Your task to perform on an android device: change your default location settings in chrome Image 0: 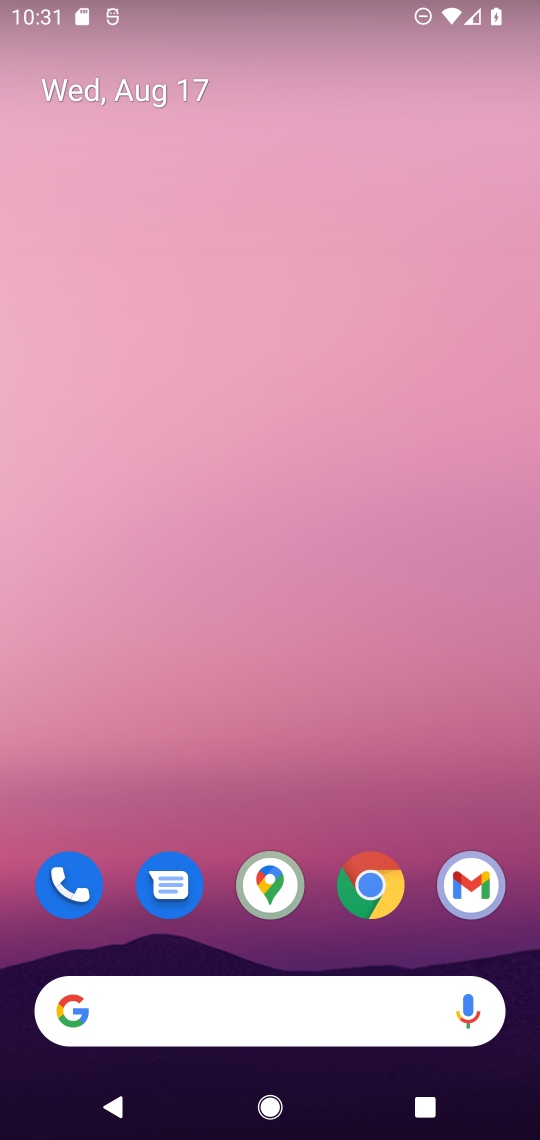
Step 0: click (367, 885)
Your task to perform on an android device: change your default location settings in chrome Image 1: 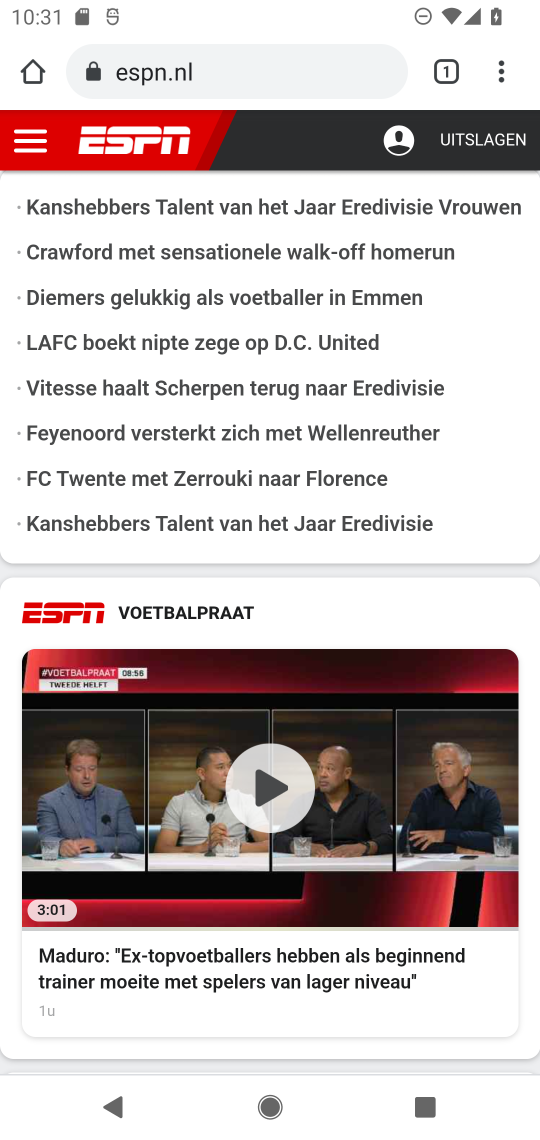
Step 1: click (492, 84)
Your task to perform on an android device: change your default location settings in chrome Image 2: 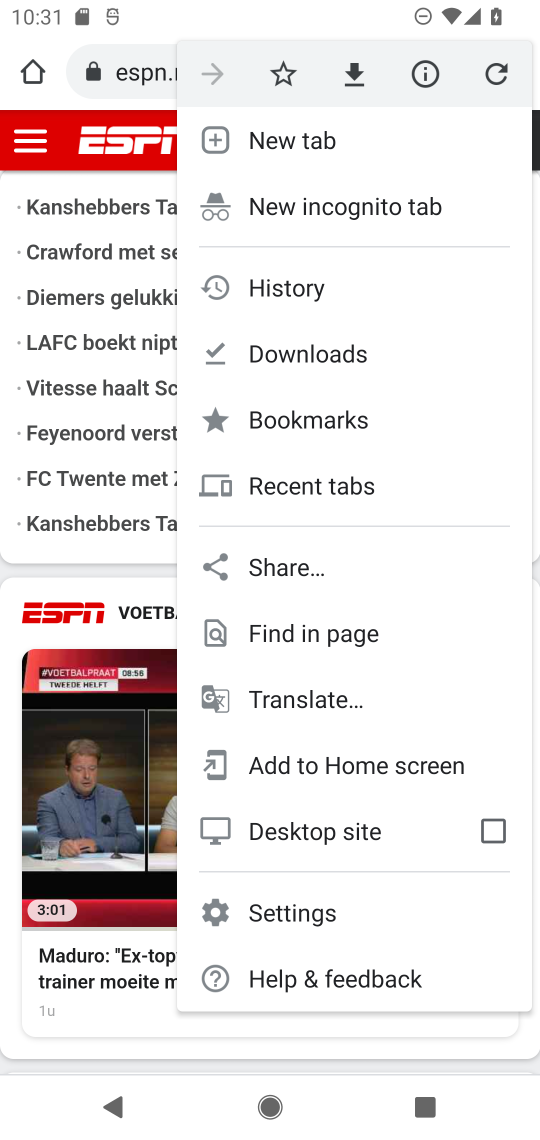
Step 2: click (301, 913)
Your task to perform on an android device: change your default location settings in chrome Image 3: 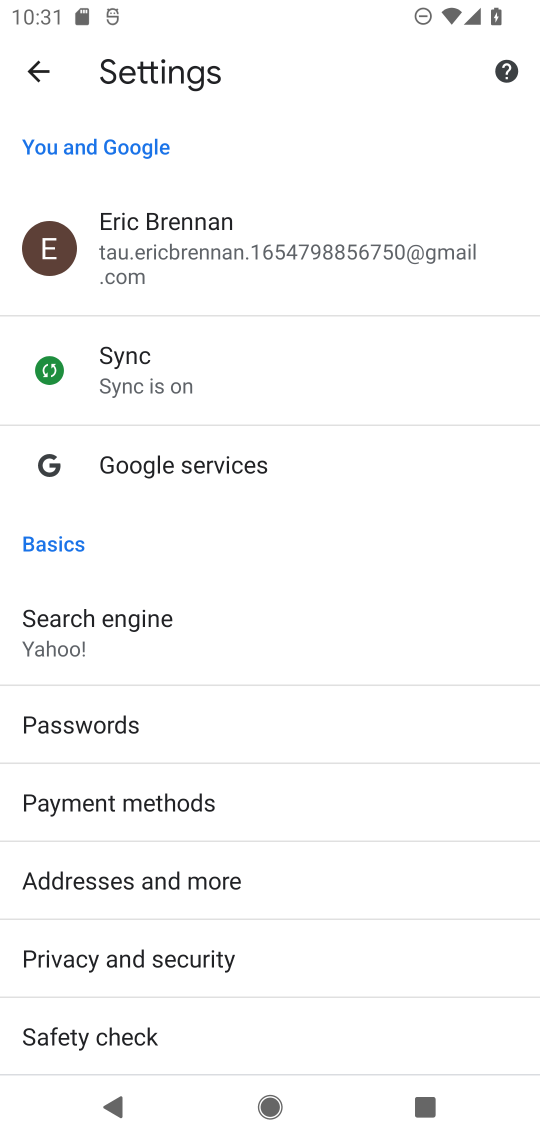
Step 3: drag from (349, 981) to (361, 332)
Your task to perform on an android device: change your default location settings in chrome Image 4: 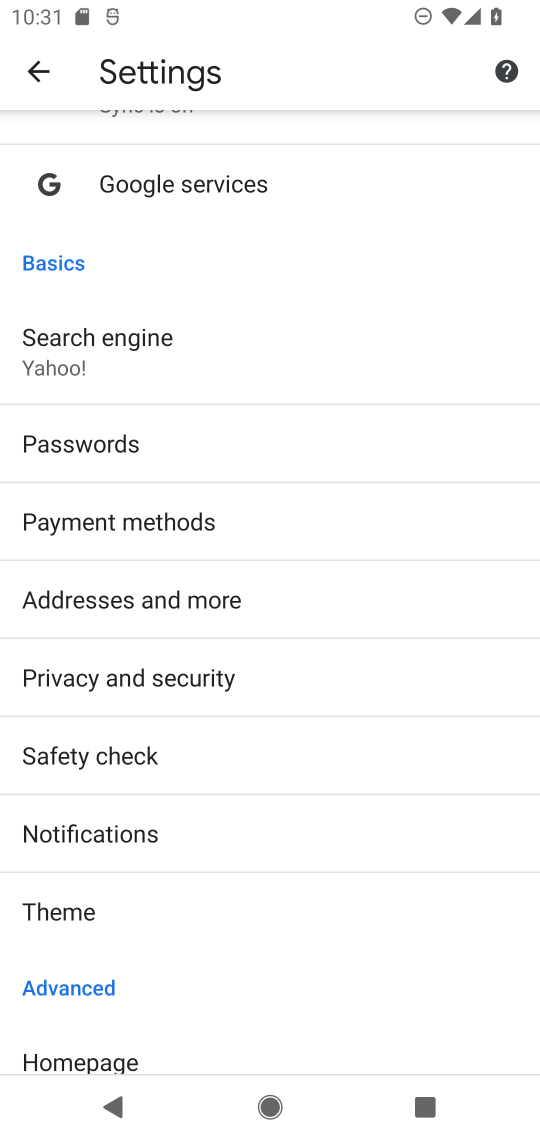
Step 4: drag from (232, 1021) to (322, 254)
Your task to perform on an android device: change your default location settings in chrome Image 5: 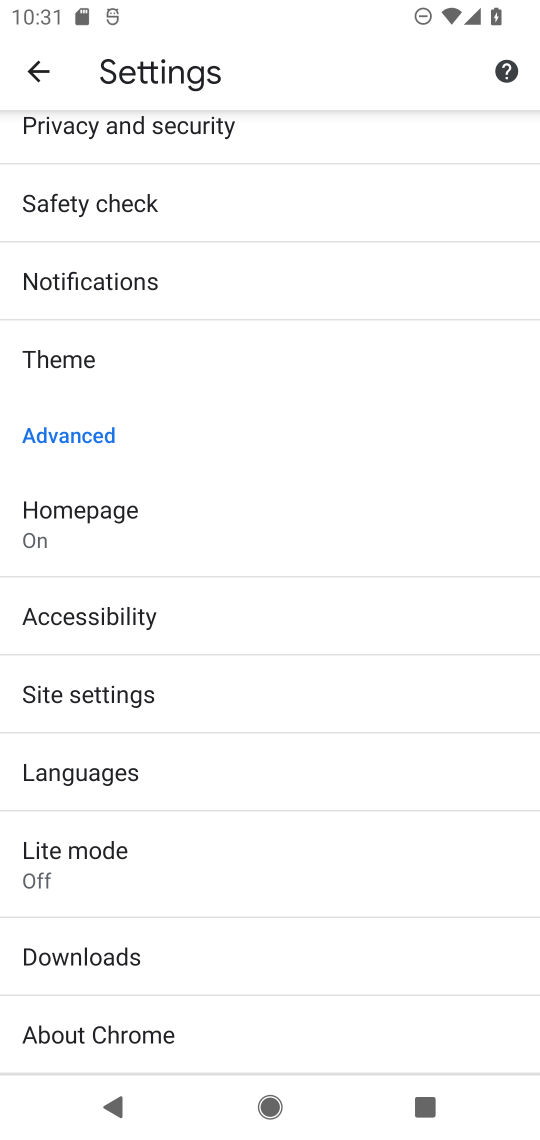
Step 5: click (109, 705)
Your task to perform on an android device: change your default location settings in chrome Image 6: 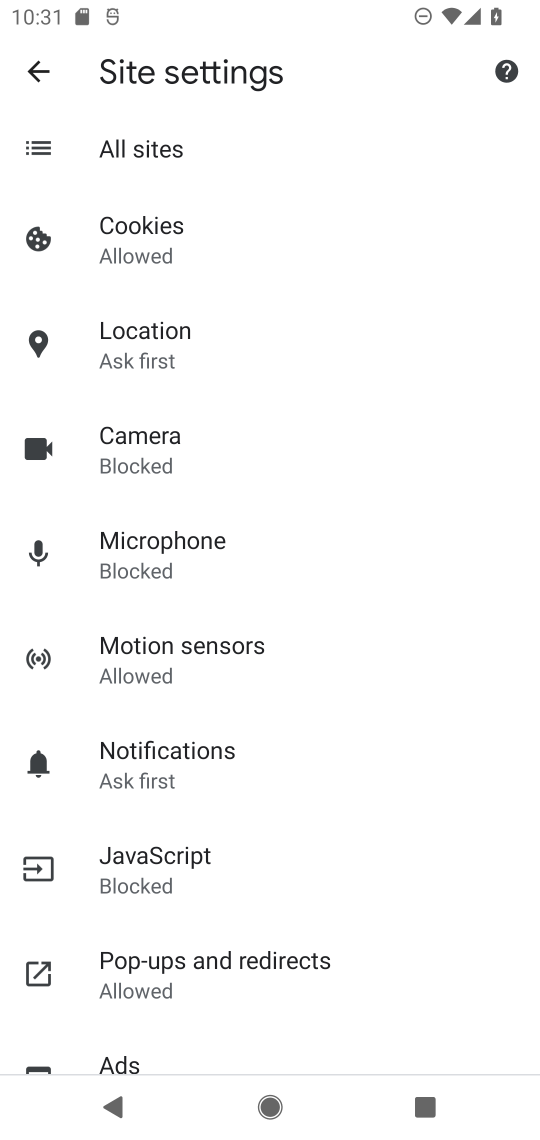
Step 6: click (150, 339)
Your task to perform on an android device: change your default location settings in chrome Image 7: 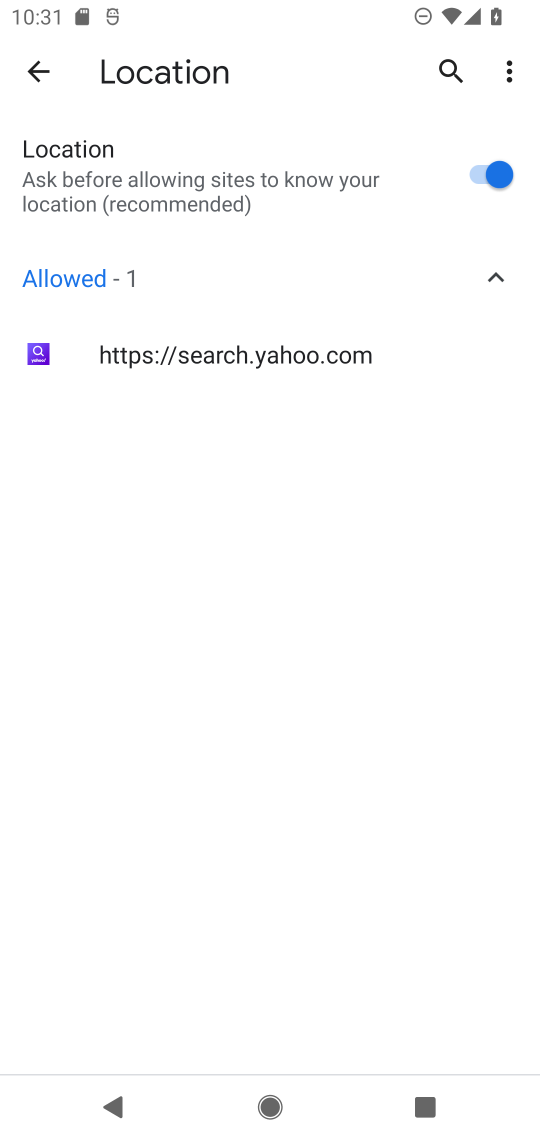
Step 7: click (468, 170)
Your task to perform on an android device: change your default location settings in chrome Image 8: 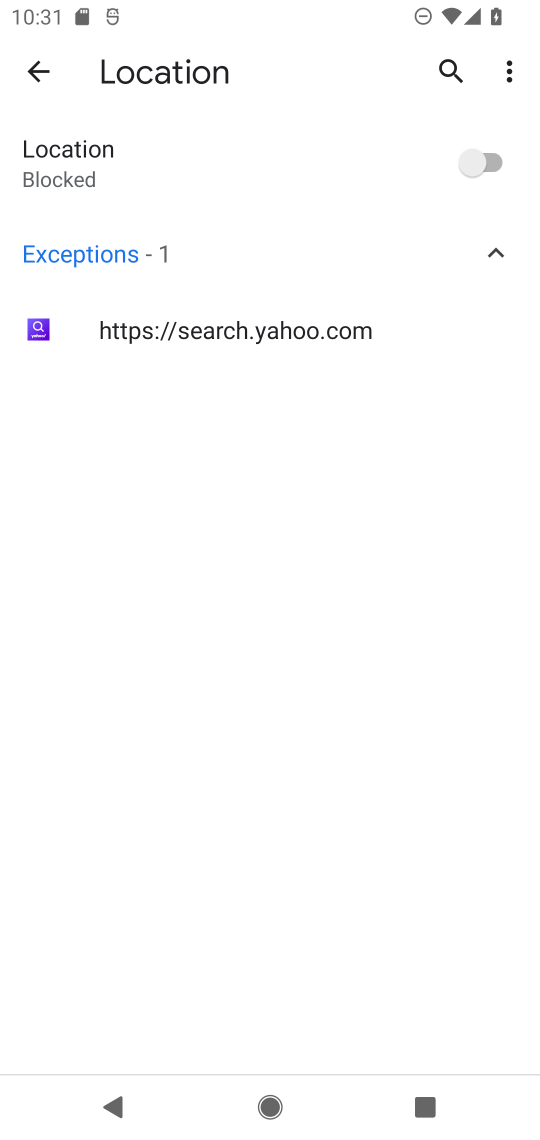
Step 8: task complete